Your task to perform on an android device: Do I have any events tomorrow? Image 0: 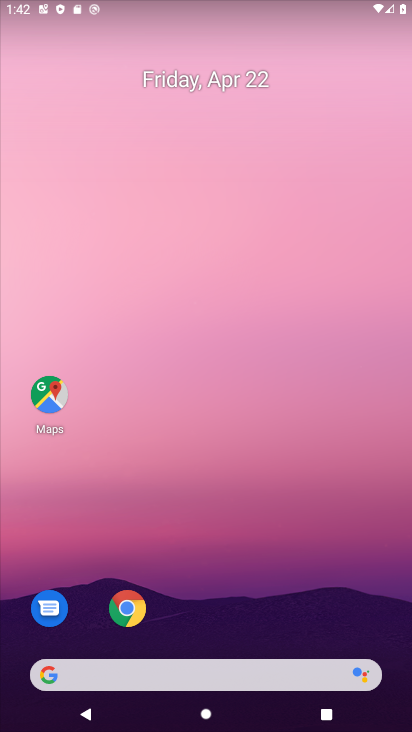
Step 0: drag from (248, 623) to (248, 1)
Your task to perform on an android device: Do I have any events tomorrow? Image 1: 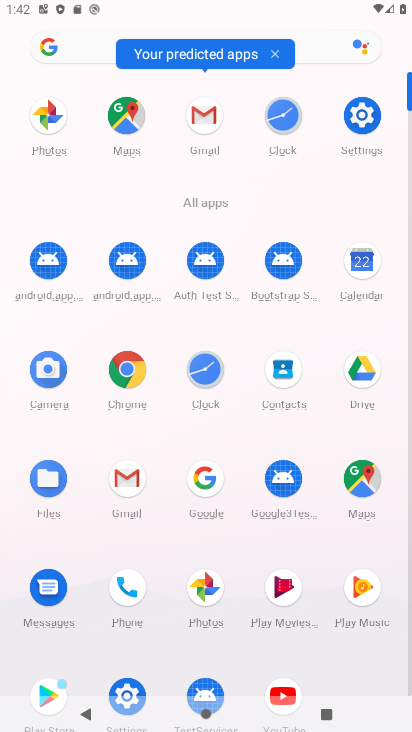
Step 1: click (360, 265)
Your task to perform on an android device: Do I have any events tomorrow? Image 2: 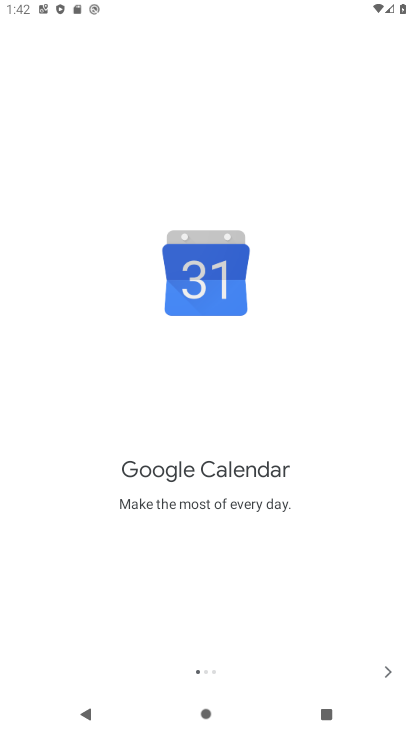
Step 2: click (384, 664)
Your task to perform on an android device: Do I have any events tomorrow? Image 3: 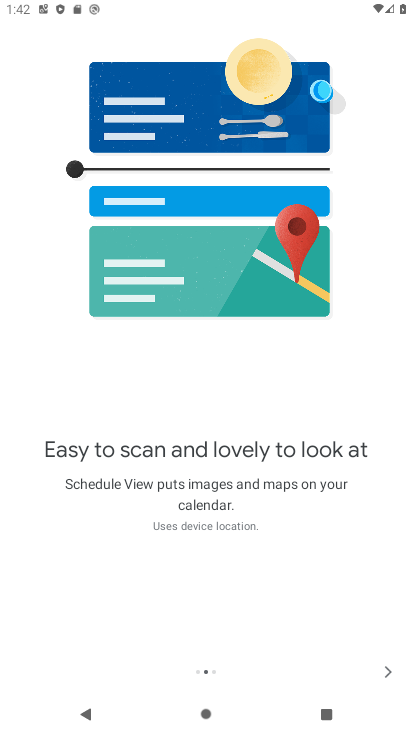
Step 3: click (386, 664)
Your task to perform on an android device: Do I have any events tomorrow? Image 4: 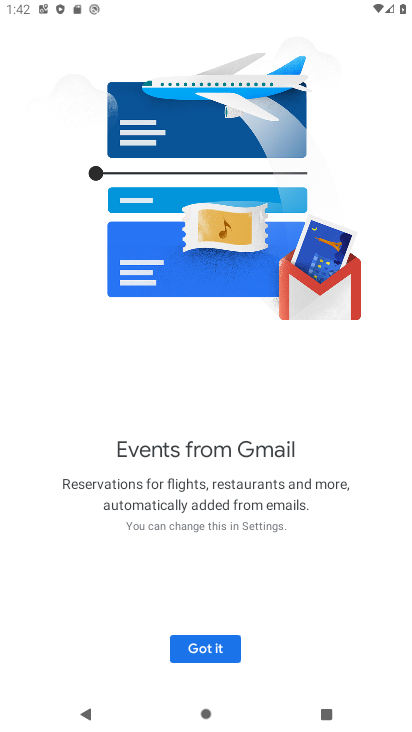
Step 4: click (185, 646)
Your task to perform on an android device: Do I have any events tomorrow? Image 5: 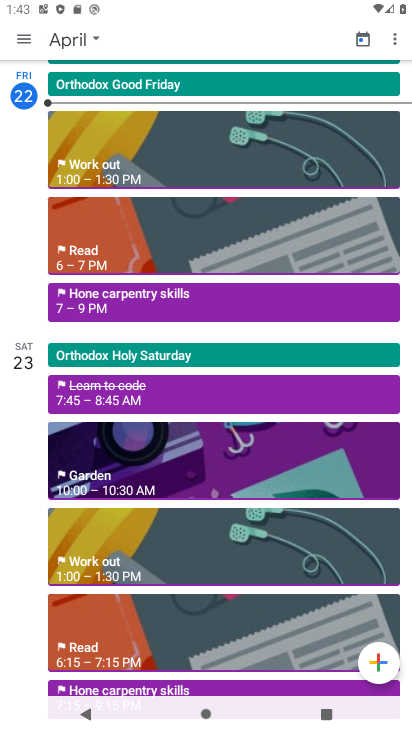
Step 5: task complete